Your task to perform on an android device: Search for pizza restaurants on Maps Image 0: 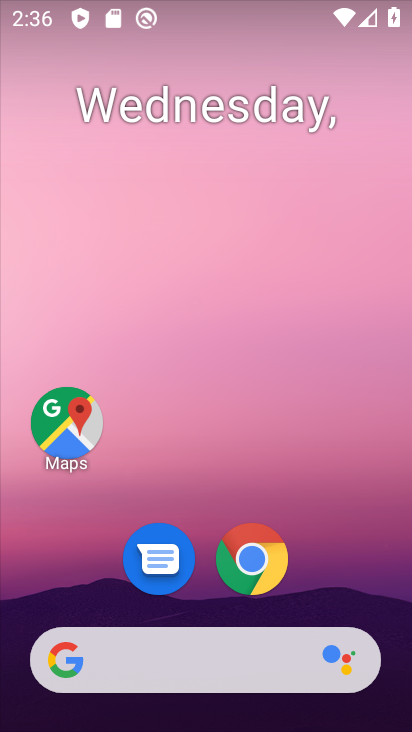
Step 0: drag from (313, 679) to (294, 165)
Your task to perform on an android device: Search for pizza restaurants on Maps Image 1: 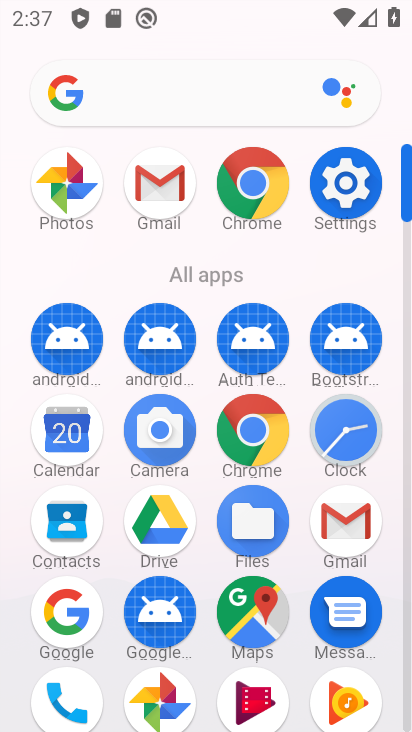
Step 1: click (258, 617)
Your task to perform on an android device: Search for pizza restaurants on Maps Image 2: 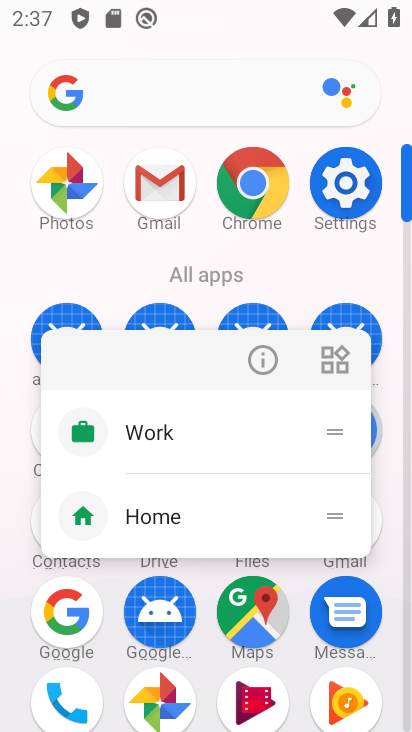
Step 2: click (237, 604)
Your task to perform on an android device: Search for pizza restaurants on Maps Image 3: 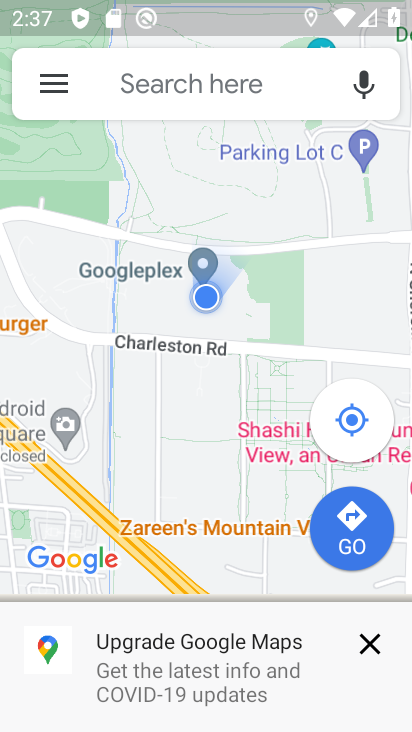
Step 3: drag from (279, 721) to (188, 572)
Your task to perform on an android device: Search for pizza restaurants on Maps Image 4: 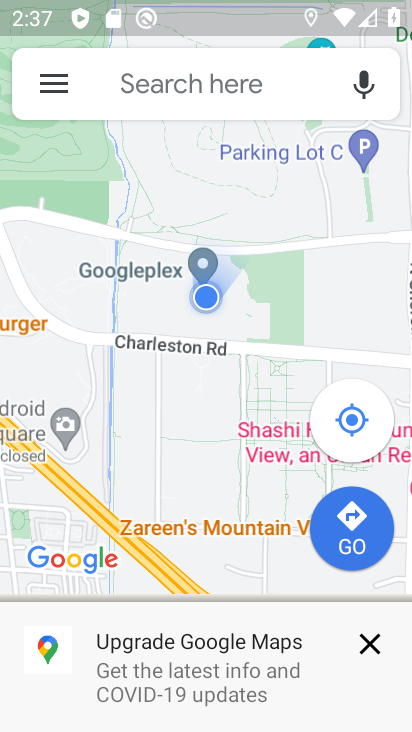
Step 4: click (207, 93)
Your task to perform on an android device: Search for pizza restaurants on Maps Image 5: 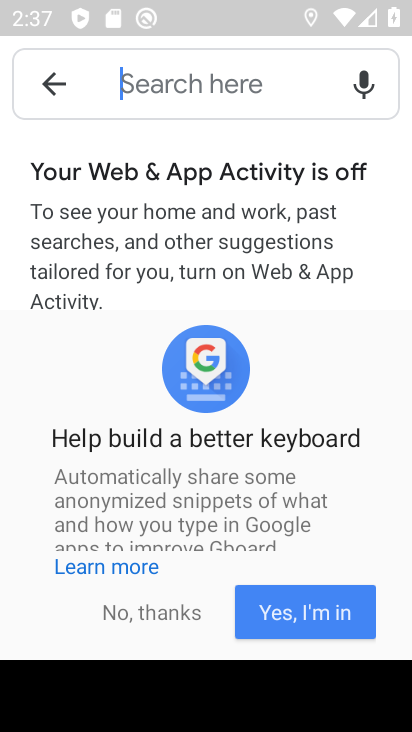
Step 5: click (151, 599)
Your task to perform on an android device: Search for pizza restaurants on Maps Image 6: 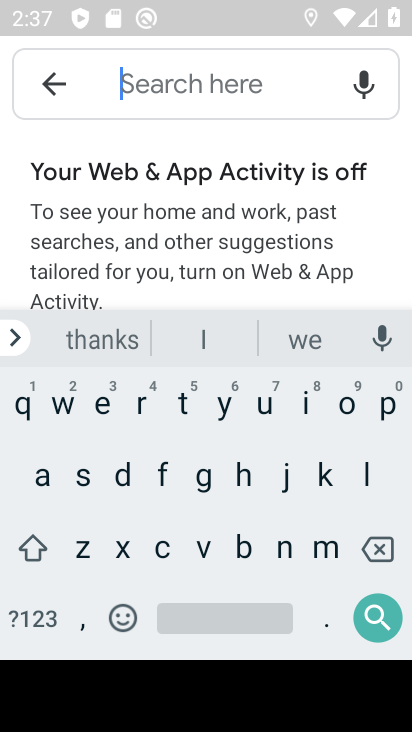
Step 6: click (328, 548)
Your task to perform on an android device: Search for pizza restaurants on Maps Image 7: 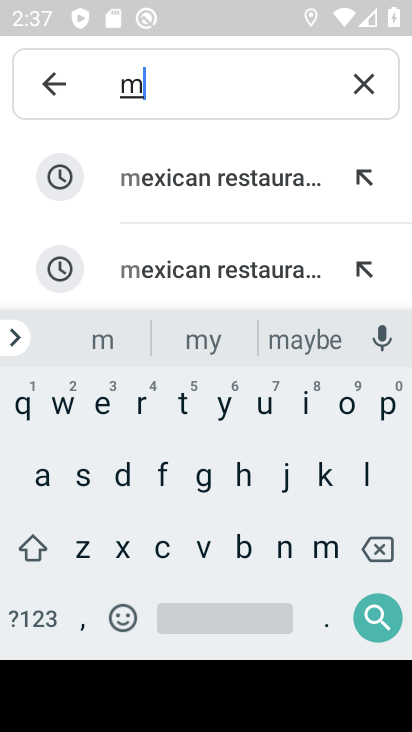
Step 7: click (379, 549)
Your task to perform on an android device: Search for pizza restaurants on Maps Image 8: 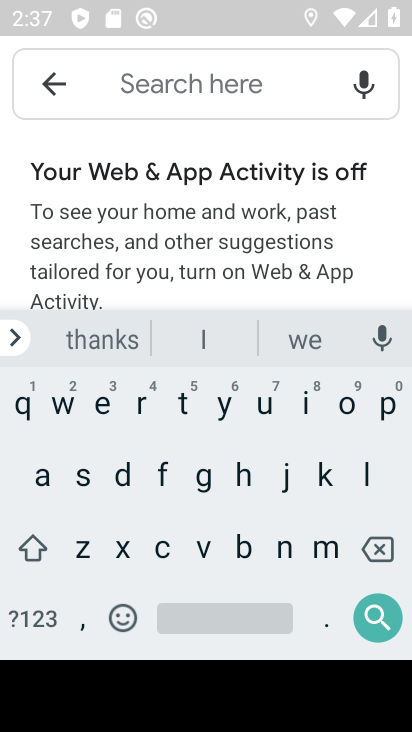
Step 8: click (379, 405)
Your task to perform on an android device: Search for pizza restaurants on Maps Image 9: 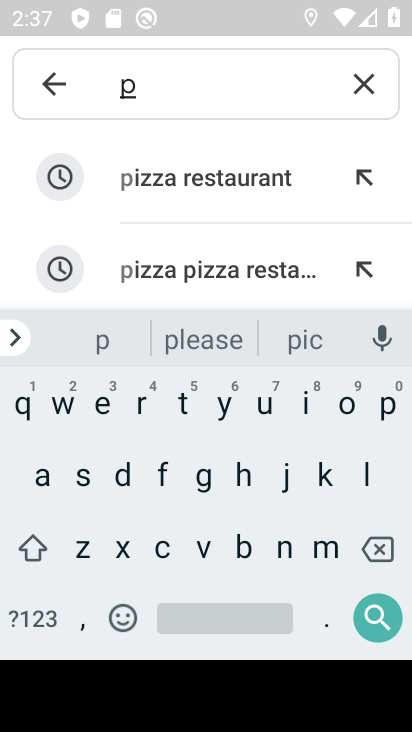
Step 9: click (230, 176)
Your task to perform on an android device: Search for pizza restaurants on Maps Image 10: 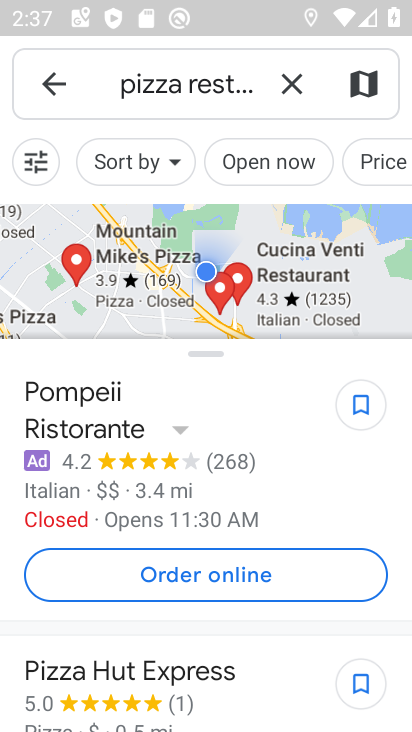
Step 10: task complete